Your task to perform on an android device: toggle priority inbox in the gmail app Image 0: 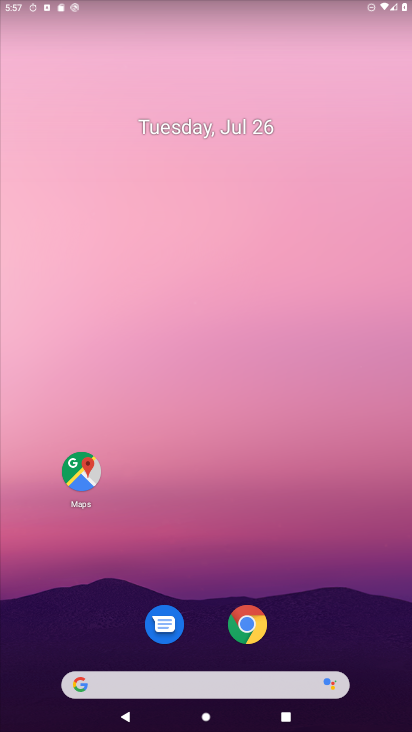
Step 0: drag from (285, 681) to (342, 51)
Your task to perform on an android device: toggle priority inbox in the gmail app Image 1: 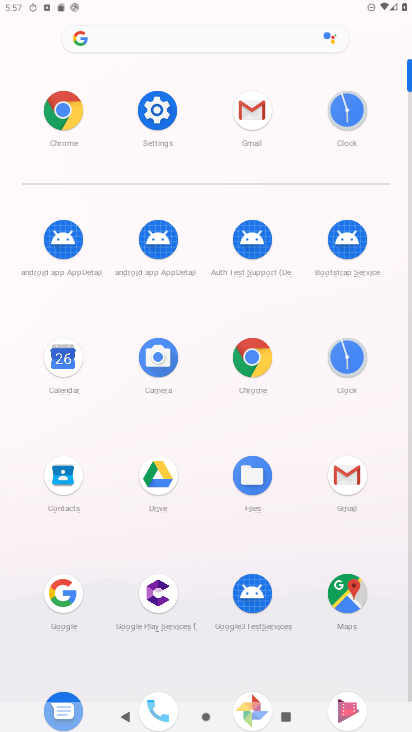
Step 1: click (349, 486)
Your task to perform on an android device: toggle priority inbox in the gmail app Image 2: 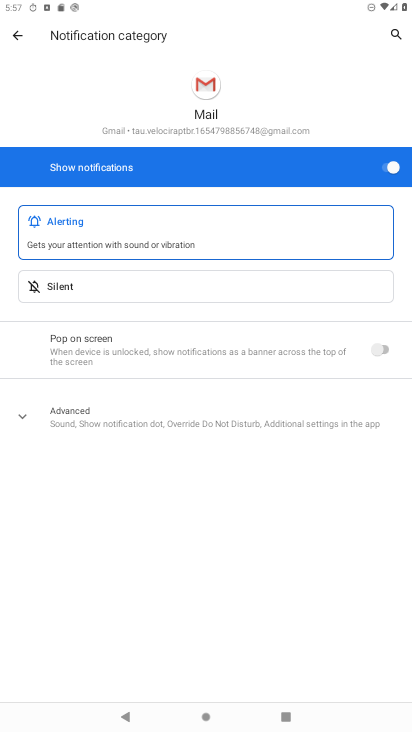
Step 2: press back button
Your task to perform on an android device: toggle priority inbox in the gmail app Image 3: 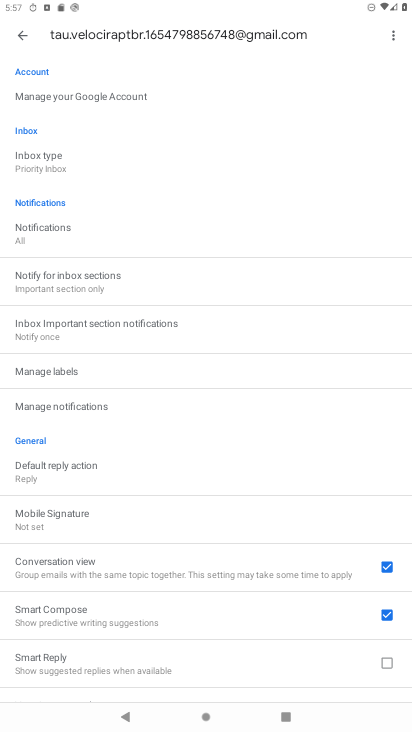
Step 3: click (62, 167)
Your task to perform on an android device: toggle priority inbox in the gmail app Image 4: 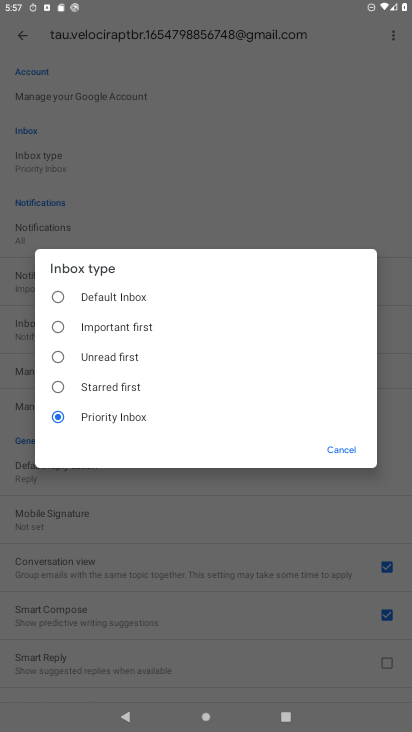
Step 4: click (60, 294)
Your task to perform on an android device: toggle priority inbox in the gmail app Image 5: 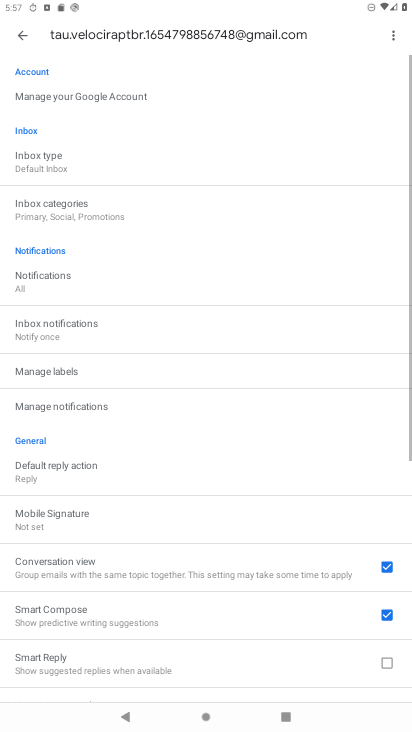
Step 5: task complete